Your task to perform on an android device: toggle location history Image 0: 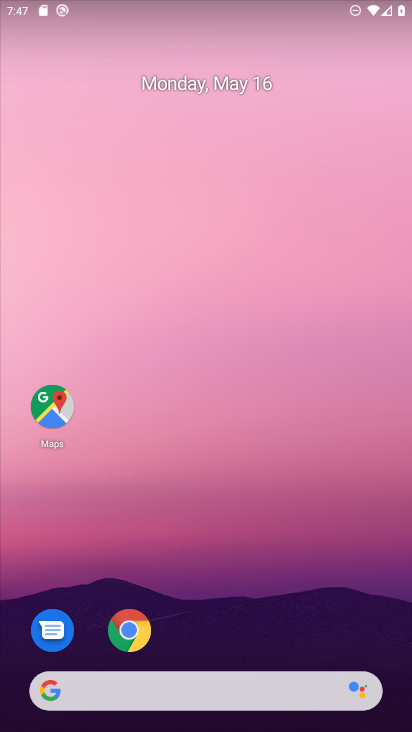
Step 0: drag from (301, 415) to (282, 255)
Your task to perform on an android device: toggle location history Image 1: 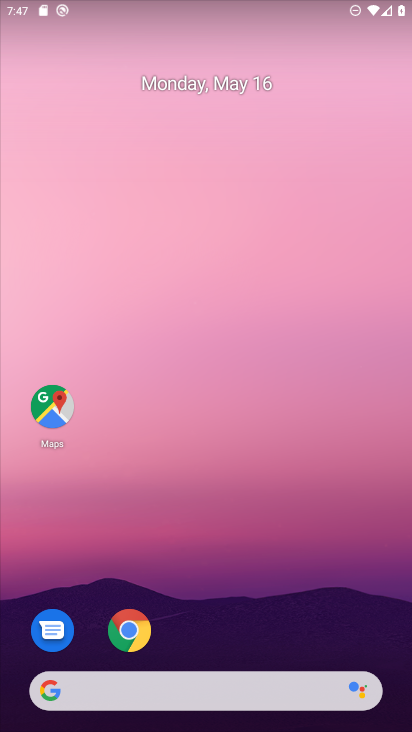
Step 1: drag from (234, 551) to (183, 165)
Your task to perform on an android device: toggle location history Image 2: 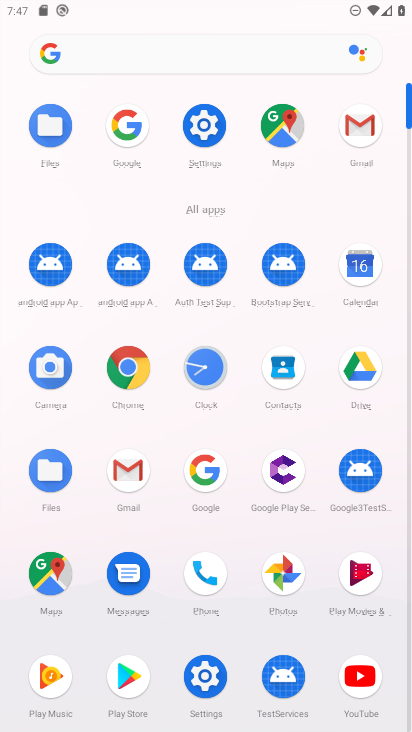
Step 2: click (186, 605)
Your task to perform on an android device: toggle location history Image 3: 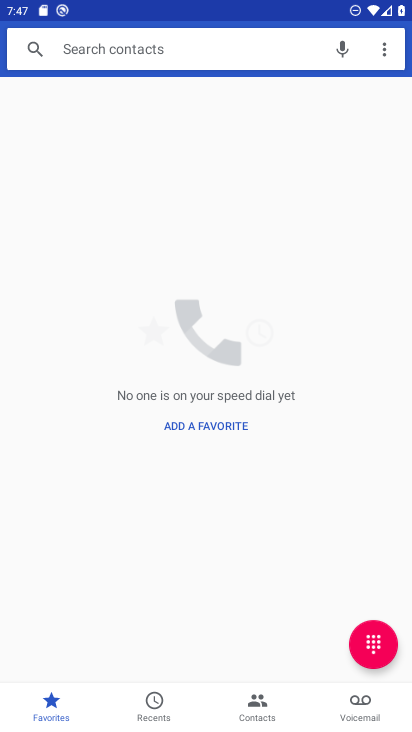
Step 3: press back button
Your task to perform on an android device: toggle location history Image 4: 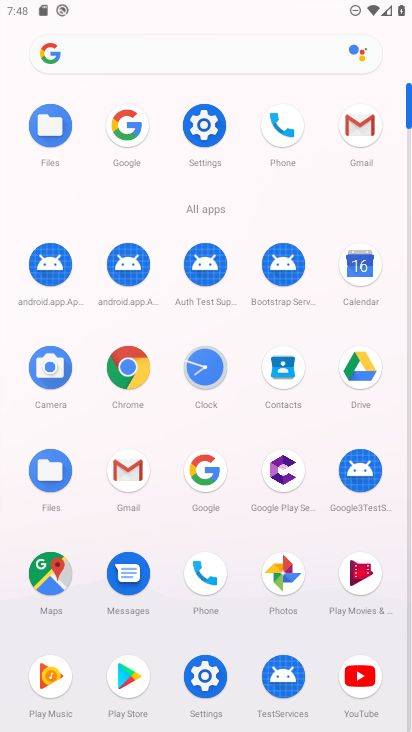
Step 4: click (208, 137)
Your task to perform on an android device: toggle location history Image 5: 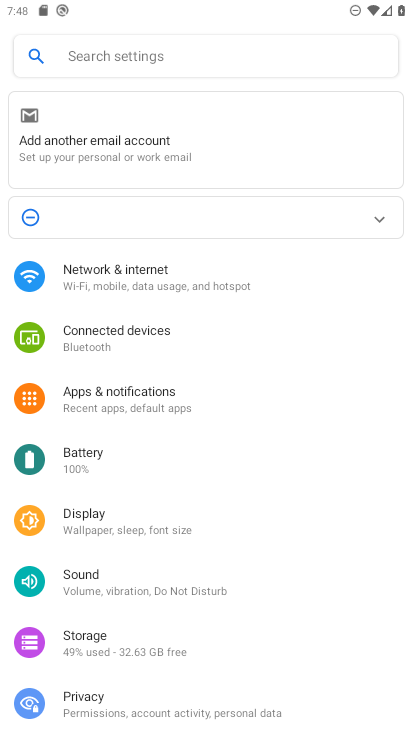
Step 5: drag from (223, 630) to (197, 360)
Your task to perform on an android device: toggle location history Image 6: 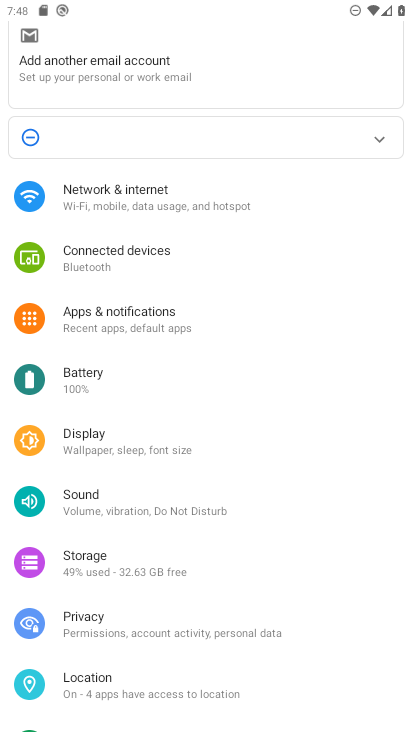
Step 6: click (151, 702)
Your task to perform on an android device: toggle location history Image 7: 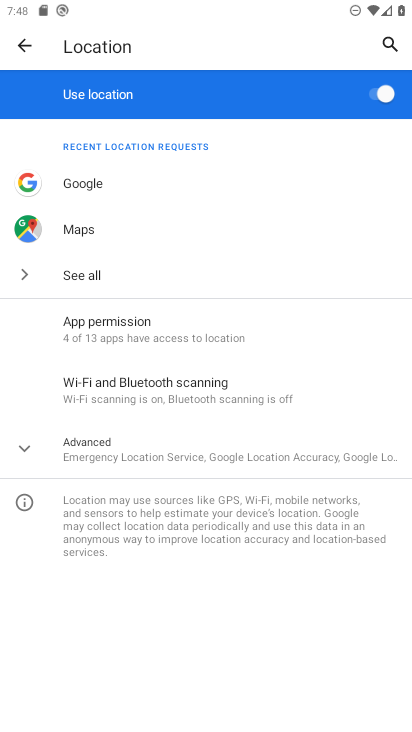
Step 7: click (241, 447)
Your task to perform on an android device: toggle location history Image 8: 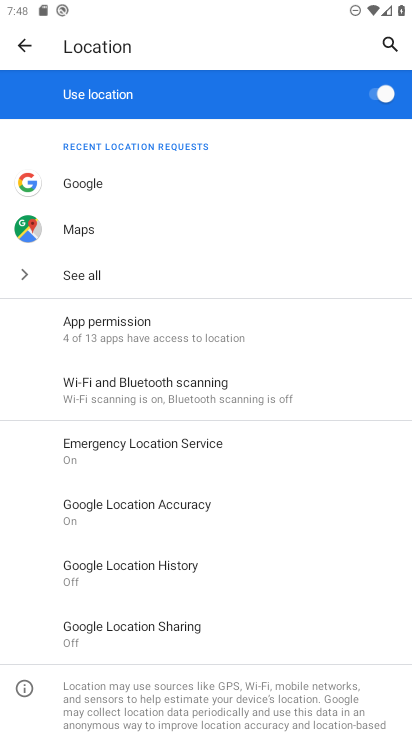
Step 8: click (182, 570)
Your task to perform on an android device: toggle location history Image 9: 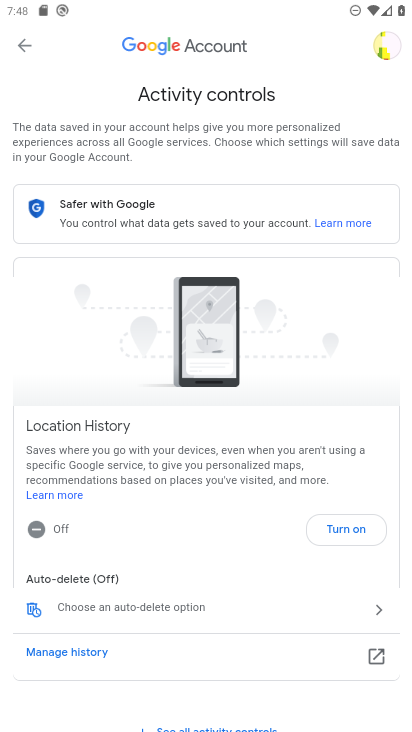
Step 9: click (342, 526)
Your task to perform on an android device: toggle location history Image 10: 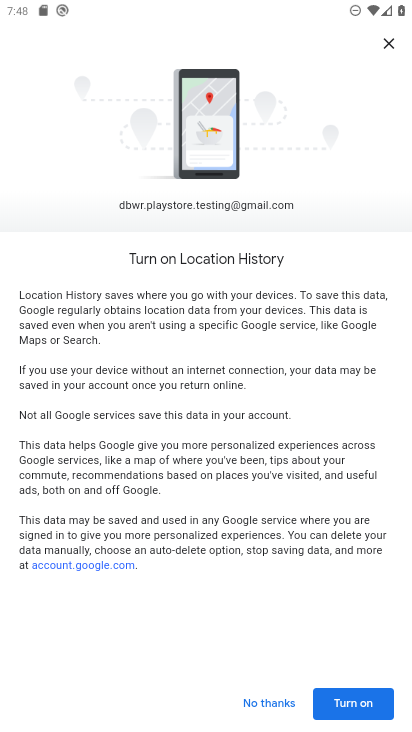
Step 10: click (347, 694)
Your task to perform on an android device: toggle location history Image 11: 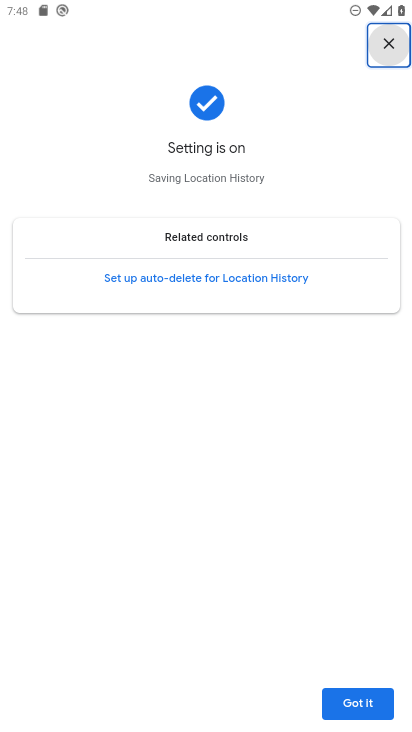
Step 11: click (362, 677)
Your task to perform on an android device: toggle location history Image 12: 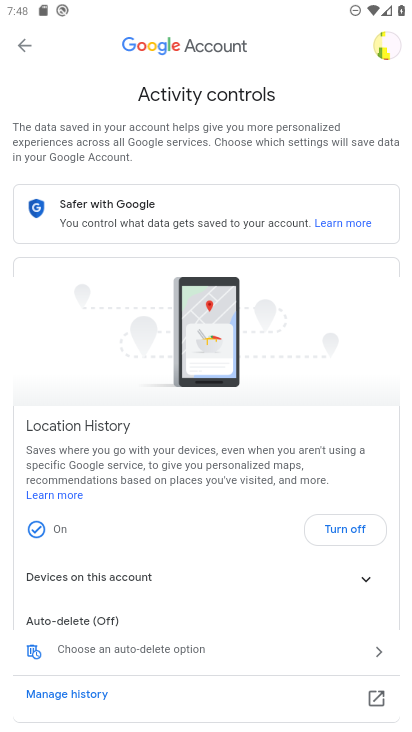
Step 12: click (364, 656)
Your task to perform on an android device: toggle location history Image 13: 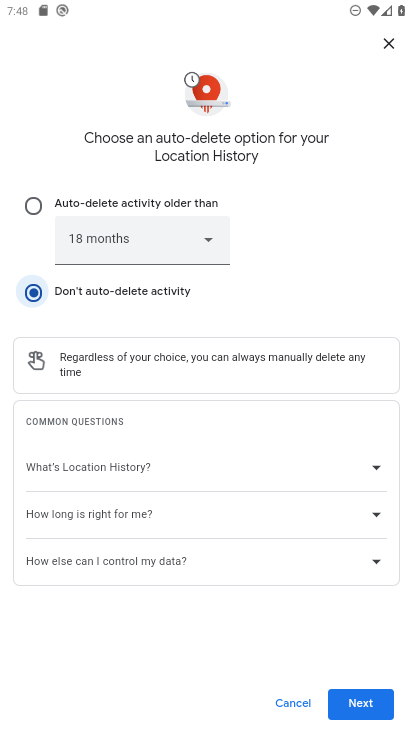
Step 13: task complete